Your task to perform on an android device: Open calendar and show me the second week of next month Image 0: 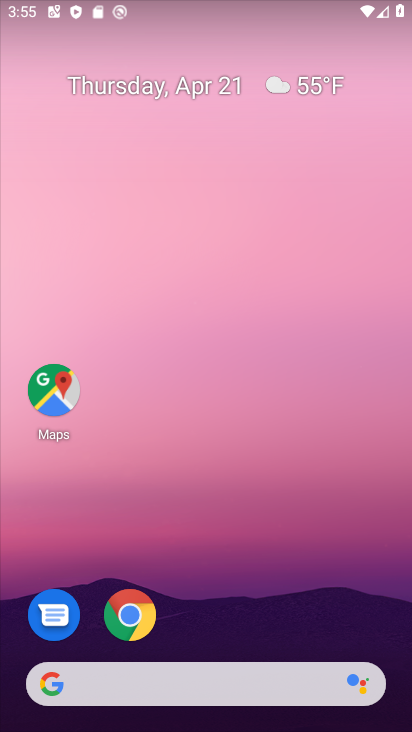
Step 0: drag from (244, 464) to (235, 37)
Your task to perform on an android device: Open calendar and show me the second week of next month Image 1: 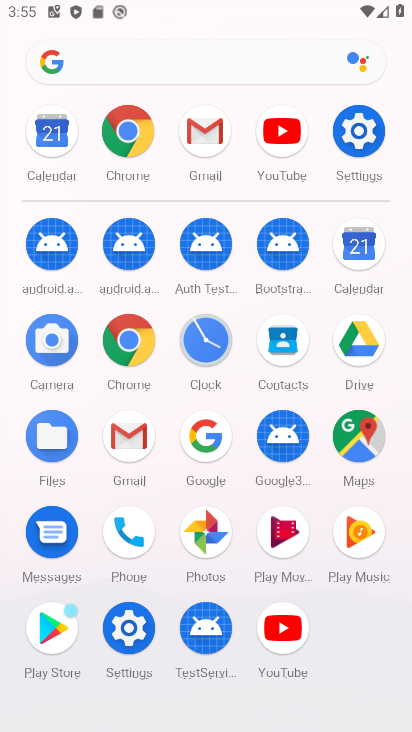
Step 1: drag from (10, 607) to (1, 375)
Your task to perform on an android device: Open calendar and show me the second week of next month Image 2: 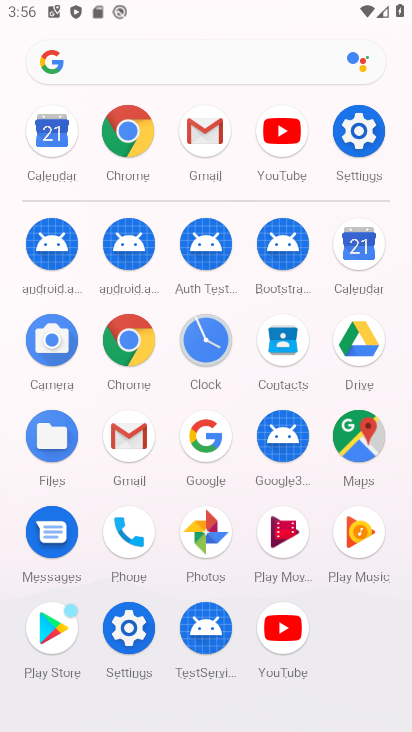
Step 2: click (356, 240)
Your task to perform on an android device: Open calendar and show me the second week of next month Image 3: 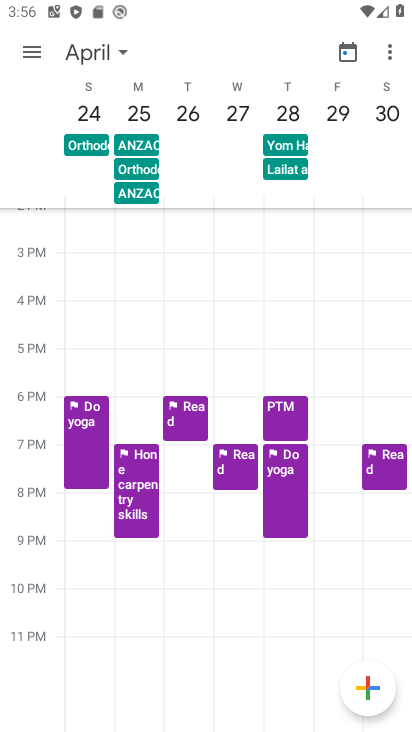
Step 3: click (115, 55)
Your task to perform on an android device: Open calendar and show me the second week of next month Image 4: 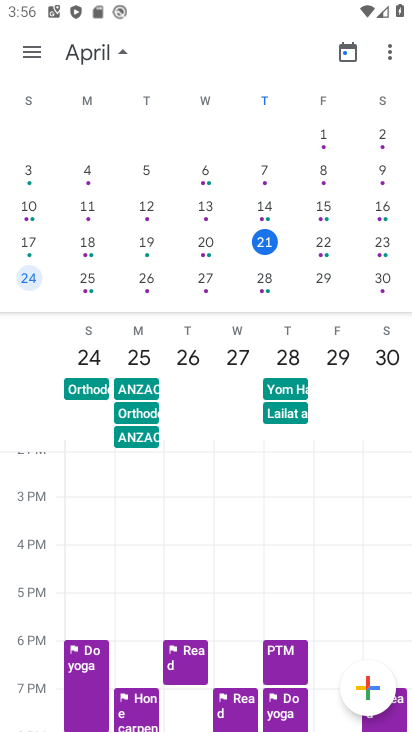
Step 4: drag from (375, 197) to (2, 185)
Your task to perform on an android device: Open calendar and show me the second week of next month Image 5: 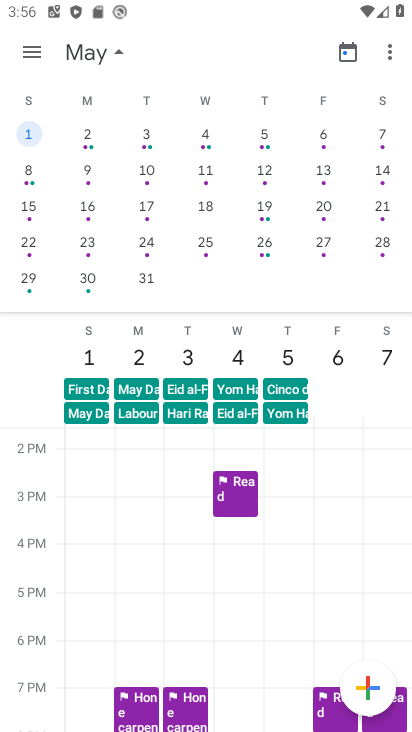
Step 5: click (27, 176)
Your task to perform on an android device: Open calendar and show me the second week of next month Image 6: 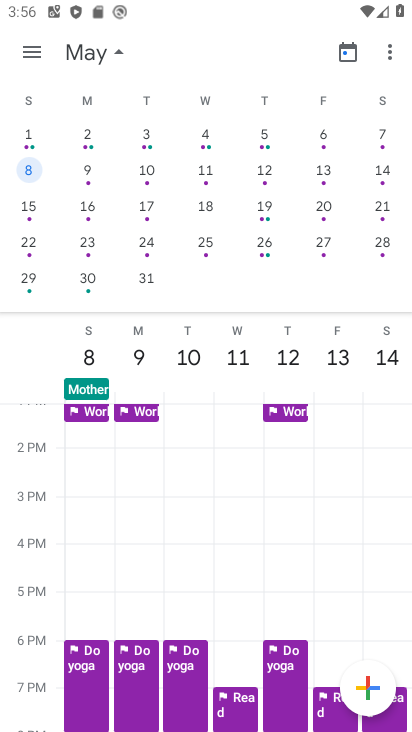
Step 6: click (32, 52)
Your task to perform on an android device: Open calendar and show me the second week of next month Image 7: 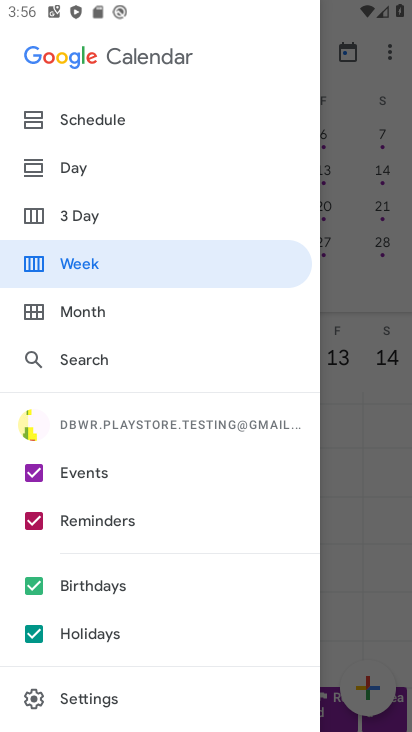
Step 7: click (120, 259)
Your task to perform on an android device: Open calendar and show me the second week of next month Image 8: 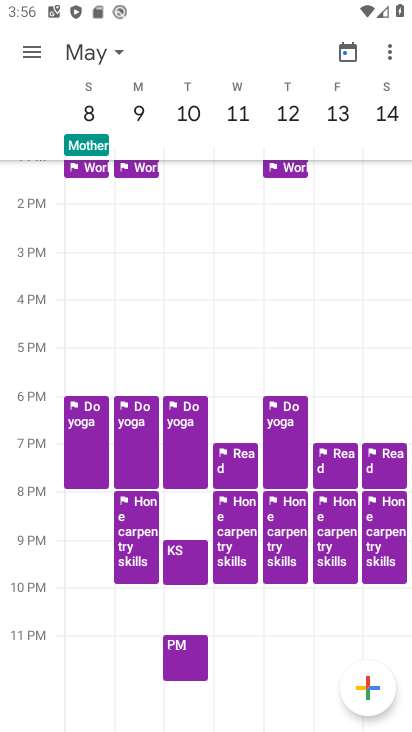
Step 8: task complete